Your task to perform on an android device: Open Google Chrome and open the bookmarks view Image 0: 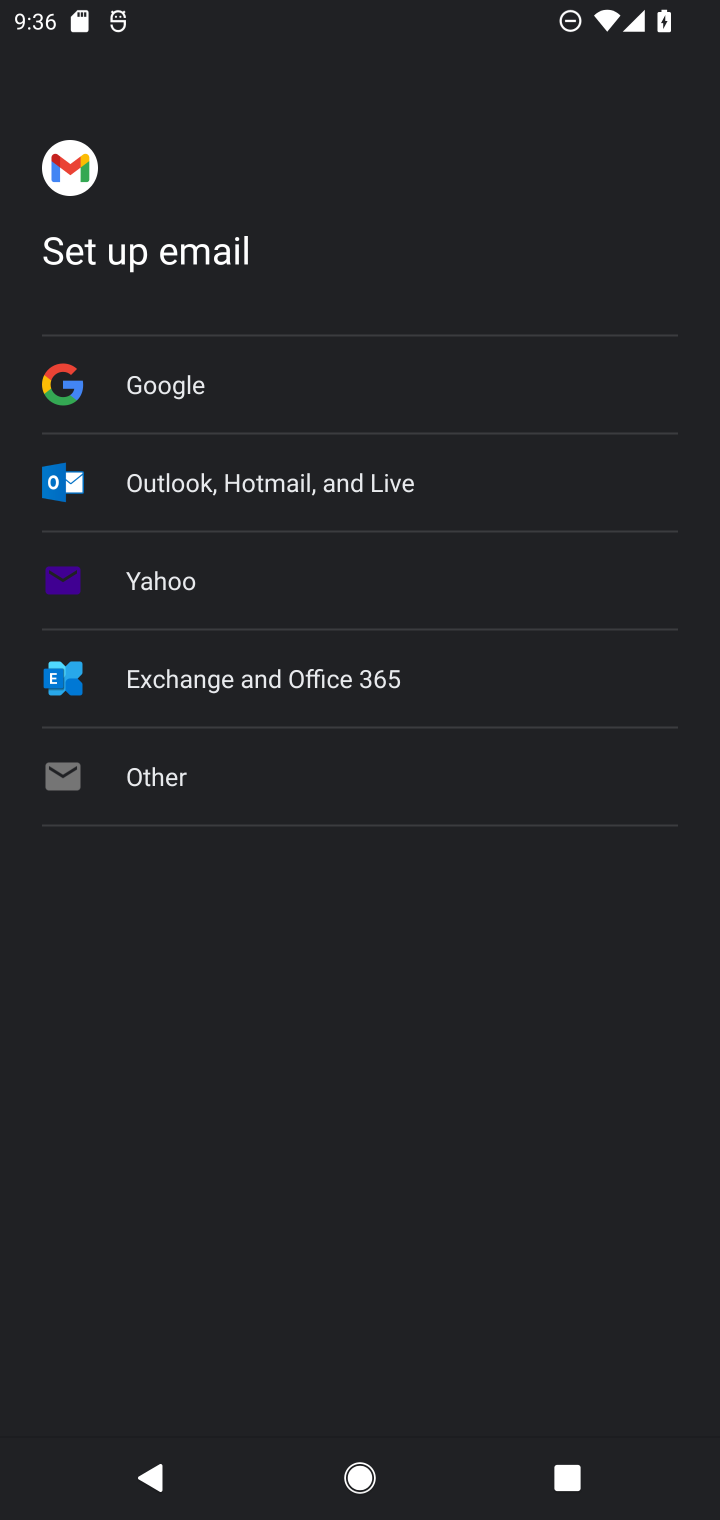
Step 0: press home button
Your task to perform on an android device: Open Google Chrome and open the bookmarks view Image 1: 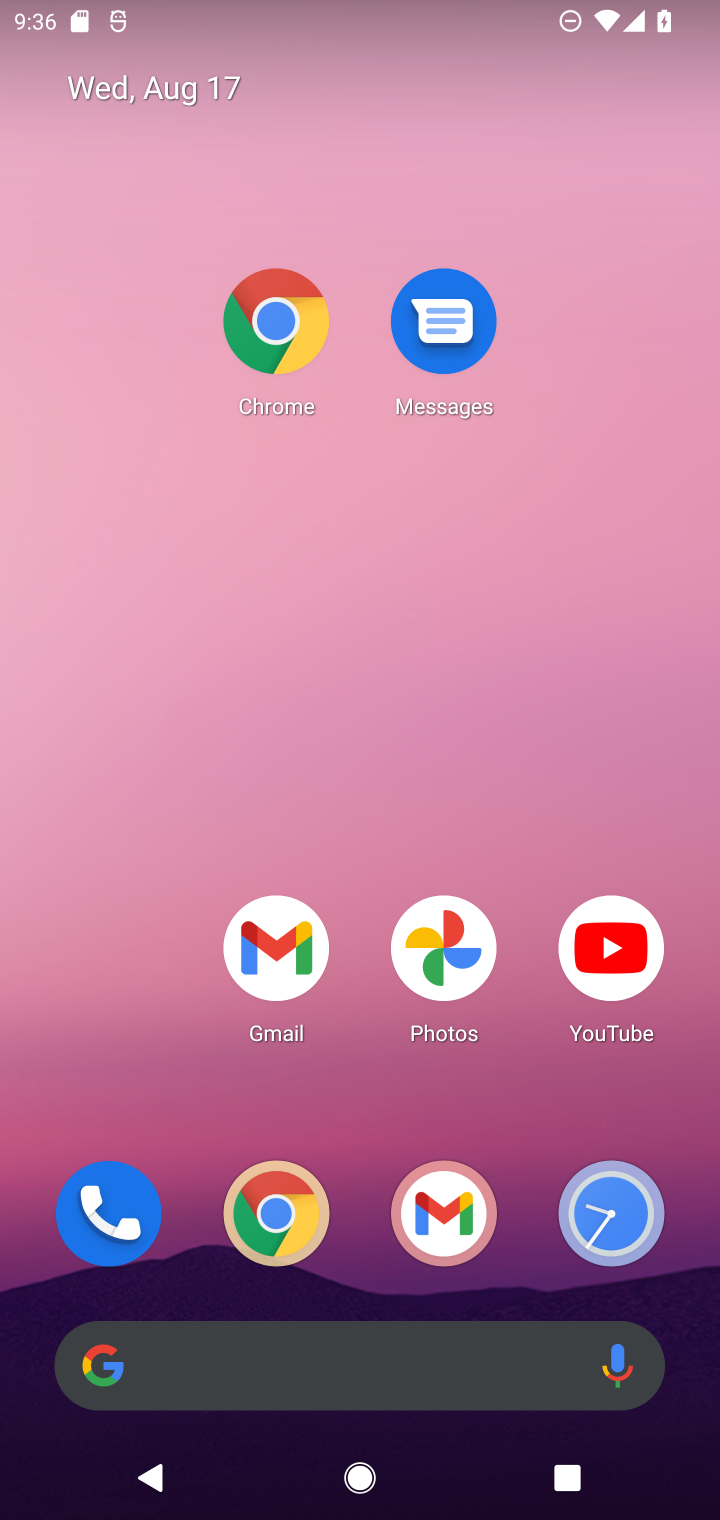
Step 1: click (311, 1202)
Your task to perform on an android device: Open Google Chrome and open the bookmarks view Image 2: 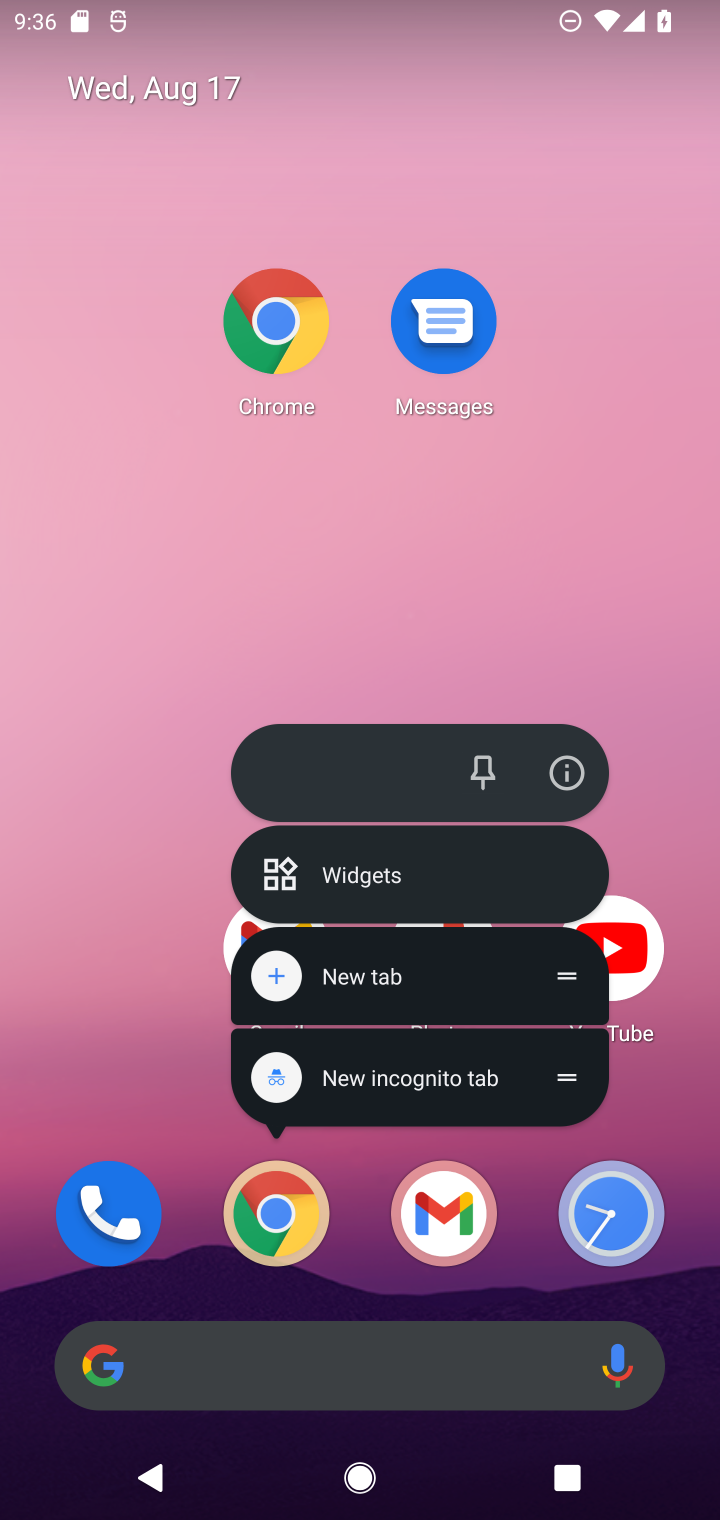
Step 2: click (311, 1202)
Your task to perform on an android device: Open Google Chrome and open the bookmarks view Image 3: 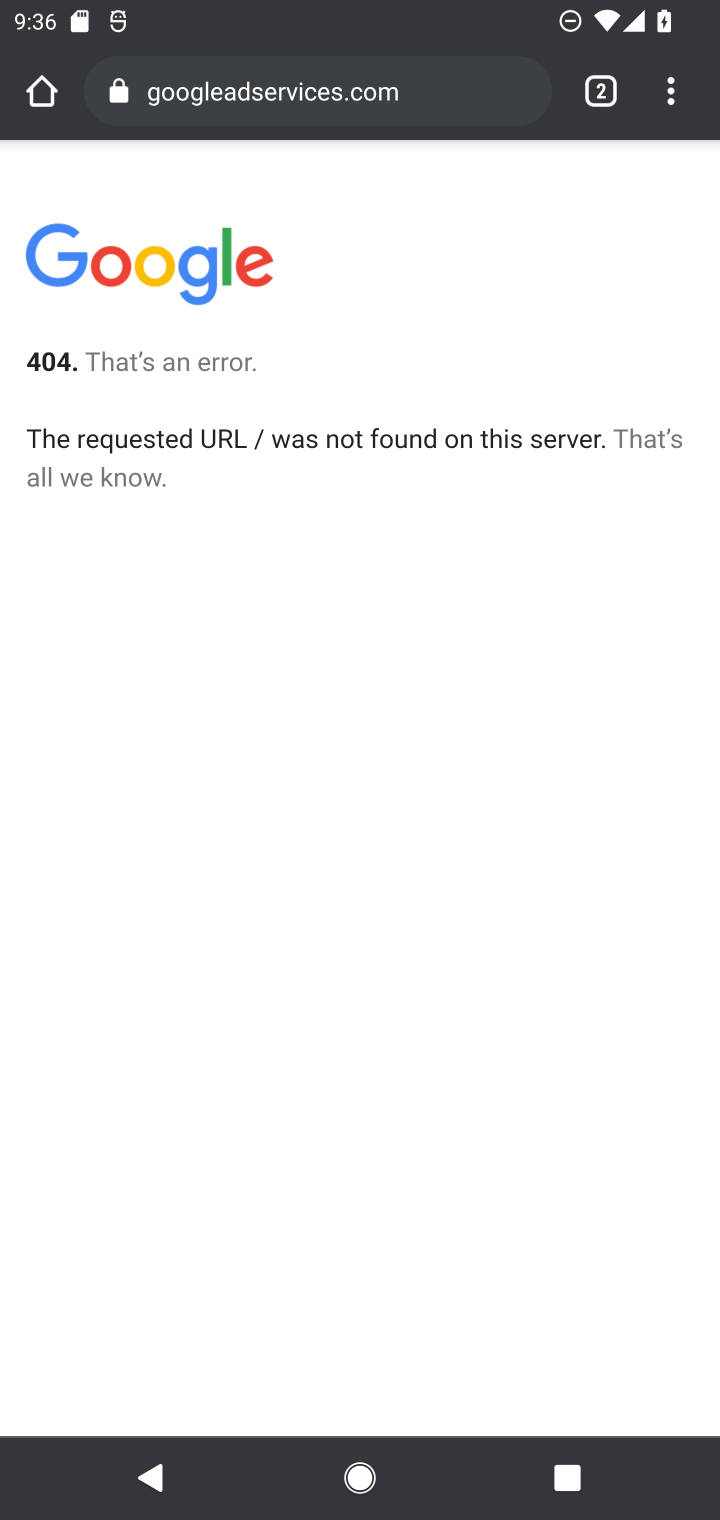
Step 3: click (651, 90)
Your task to perform on an android device: Open Google Chrome and open the bookmarks view Image 4: 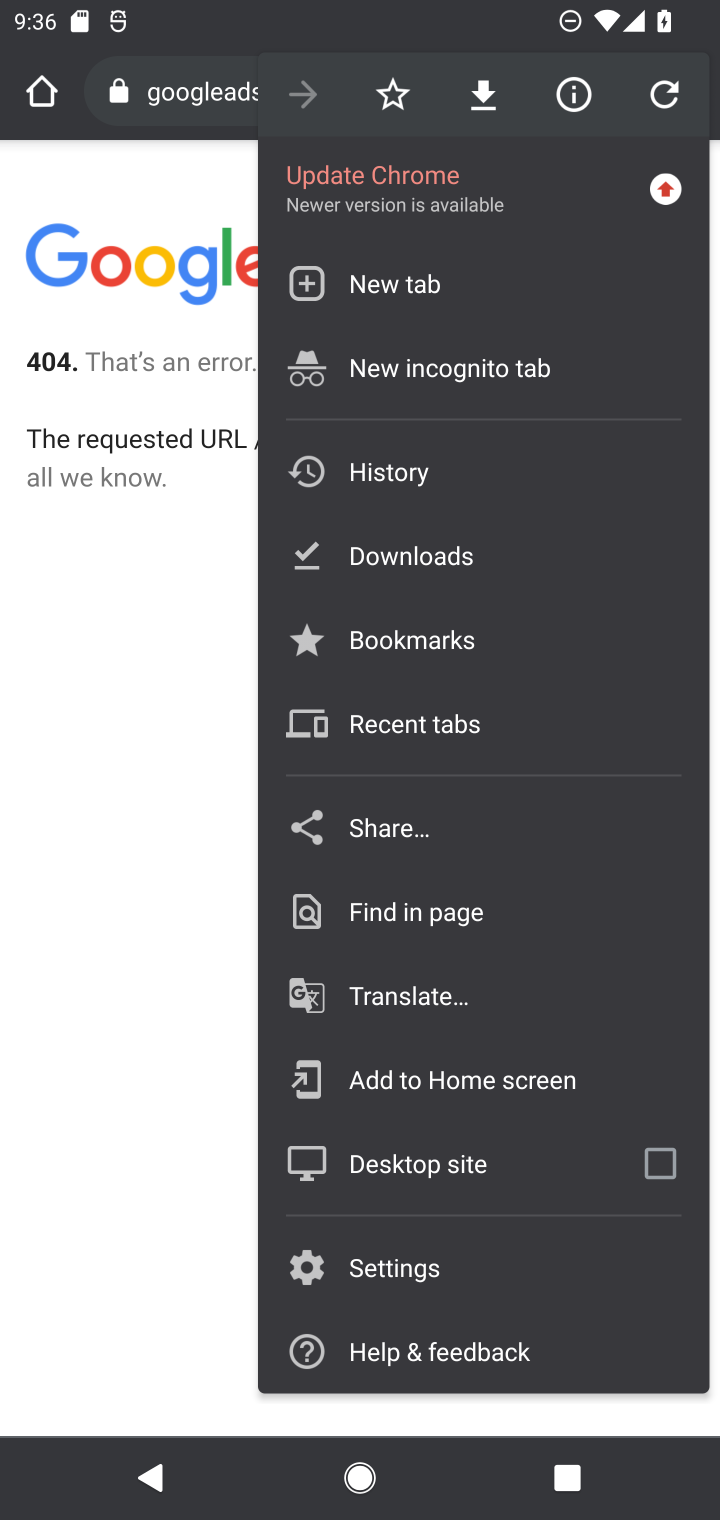
Step 4: click (434, 625)
Your task to perform on an android device: Open Google Chrome and open the bookmarks view Image 5: 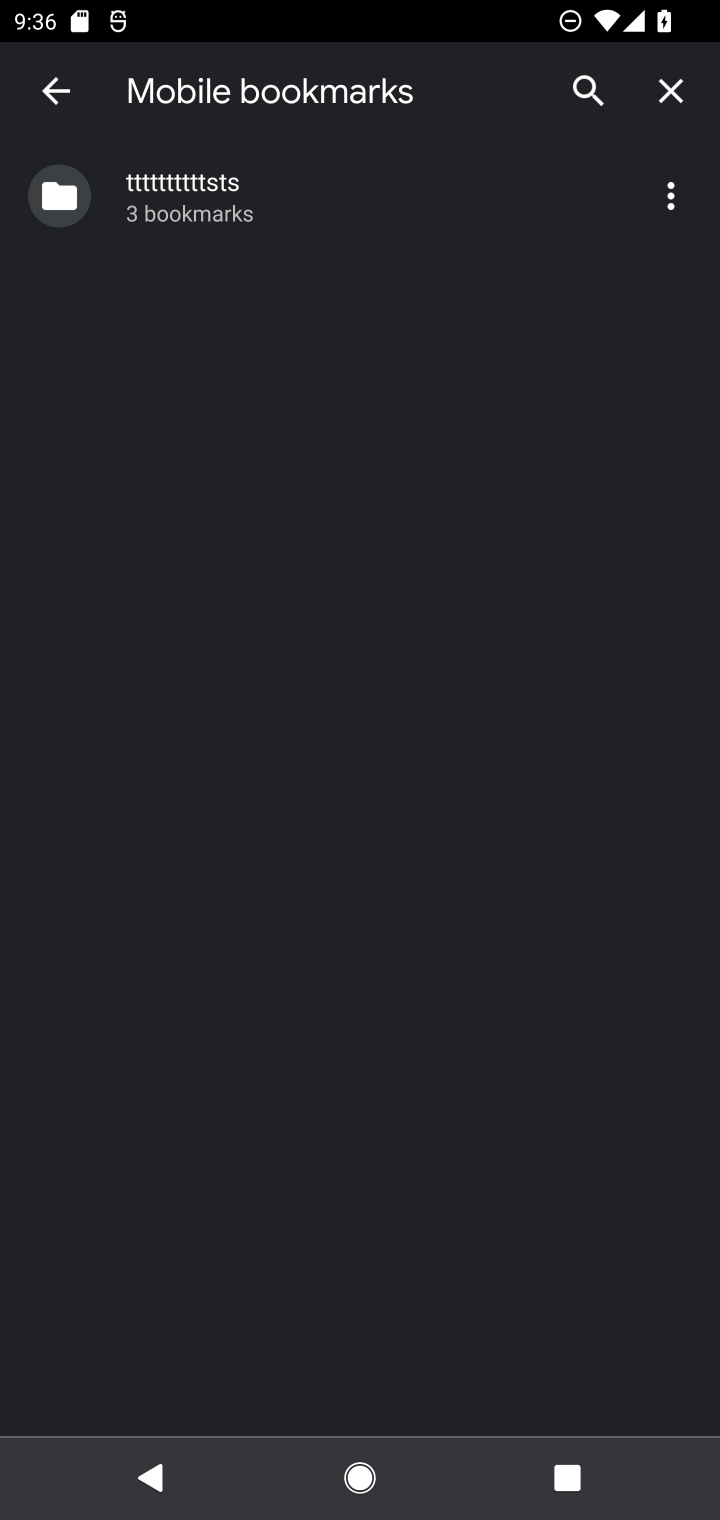
Step 5: task complete